Your task to perform on an android device: turn off notifications in google photos Image 0: 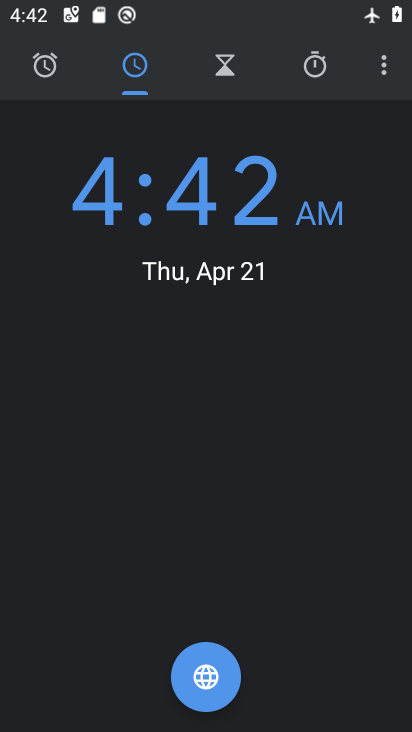
Step 0: press back button
Your task to perform on an android device: turn off notifications in google photos Image 1: 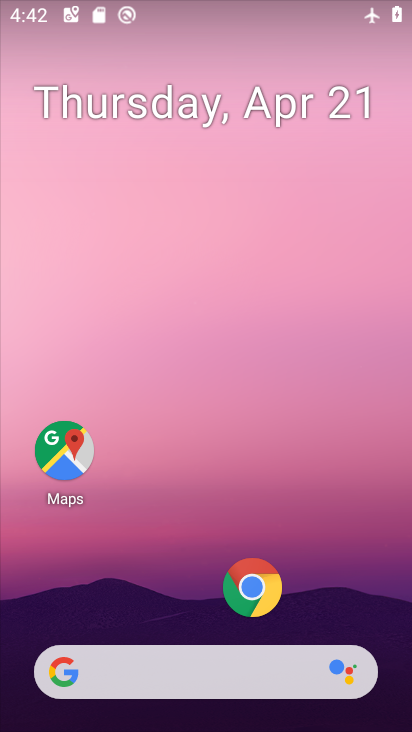
Step 1: drag from (138, 645) to (225, 112)
Your task to perform on an android device: turn off notifications in google photos Image 2: 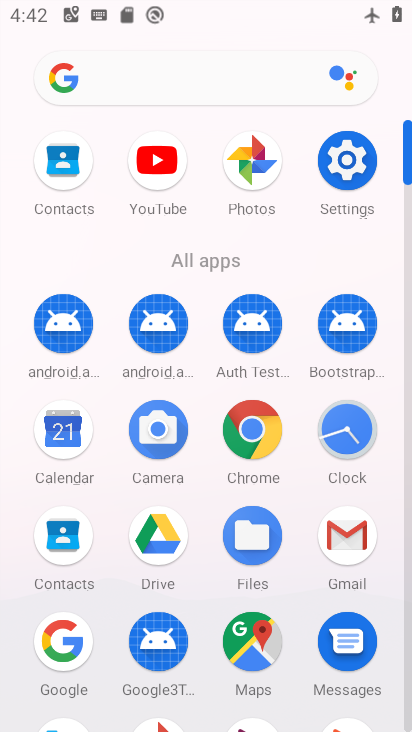
Step 2: drag from (174, 641) to (277, 323)
Your task to perform on an android device: turn off notifications in google photos Image 3: 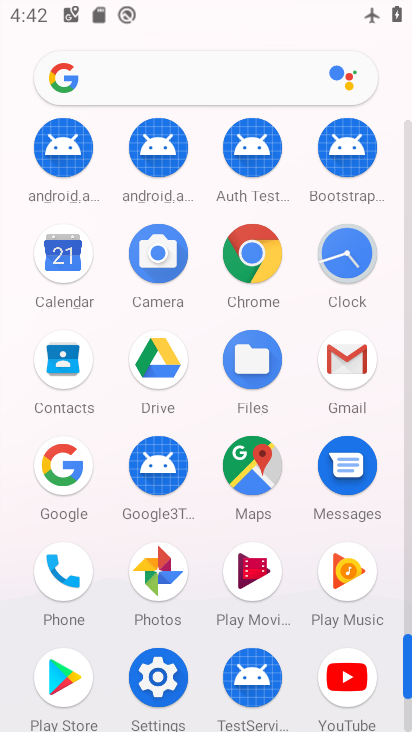
Step 3: click (168, 570)
Your task to perform on an android device: turn off notifications in google photos Image 4: 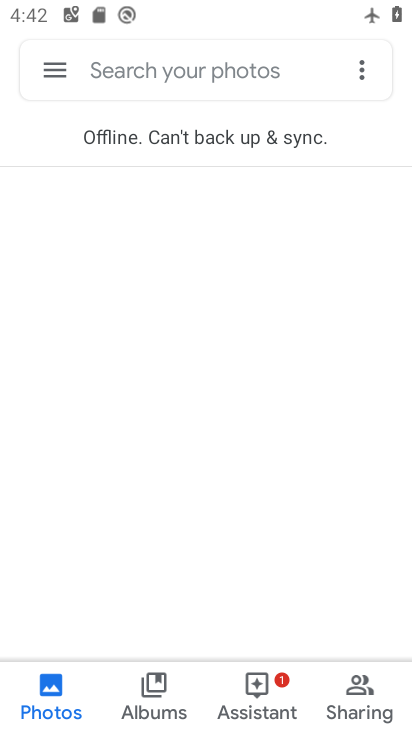
Step 4: click (55, 75)
Your task to perform on an android device: turn off notifications in google photos Image 5: 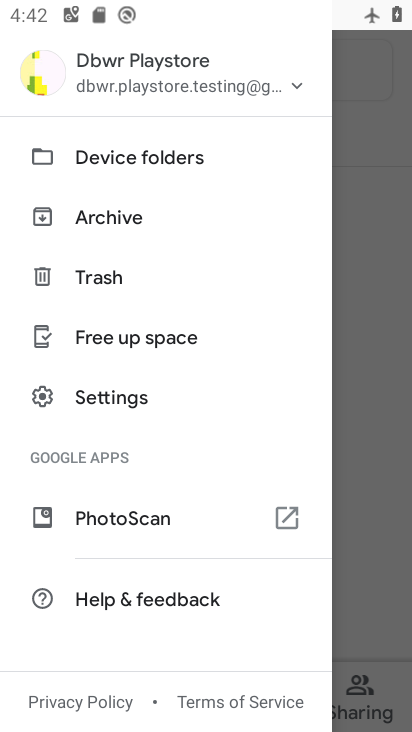
Step 5: click (124, 410)
Your task to perform on an android device: turn off notifications in google photos Image 6: 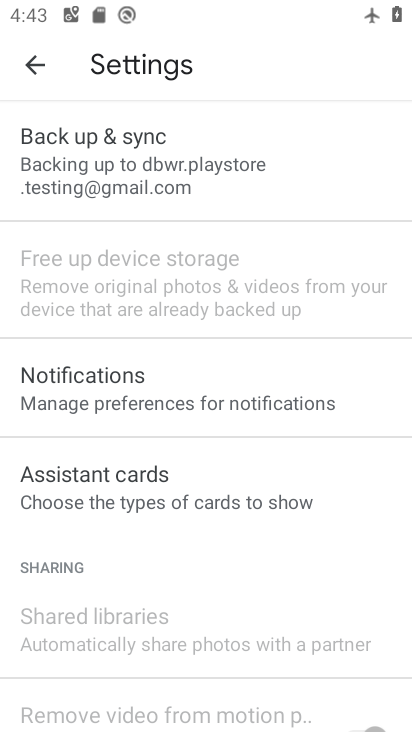
Step 6: click (151, 387)
Your task to perform on an android device: turn off notifications in google photos Image 7: 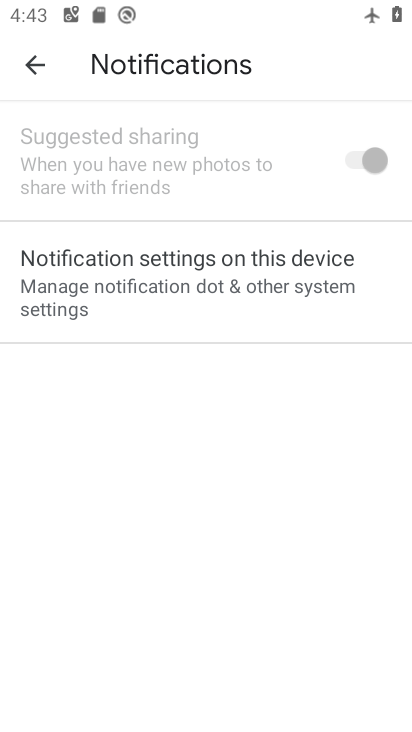
Step 7: click (211, 270)
Your task to perform on an android device: turn off notifications in google photos Image 8: 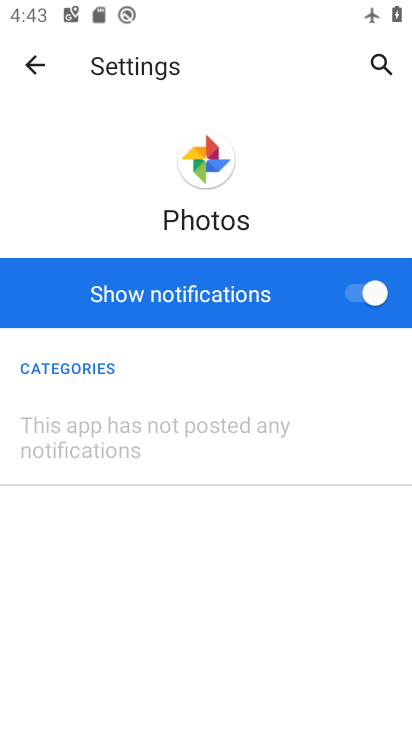
Step 8: click (359, 294)
Your task to perform on an android device: turn off notifications in google photos Image 9: 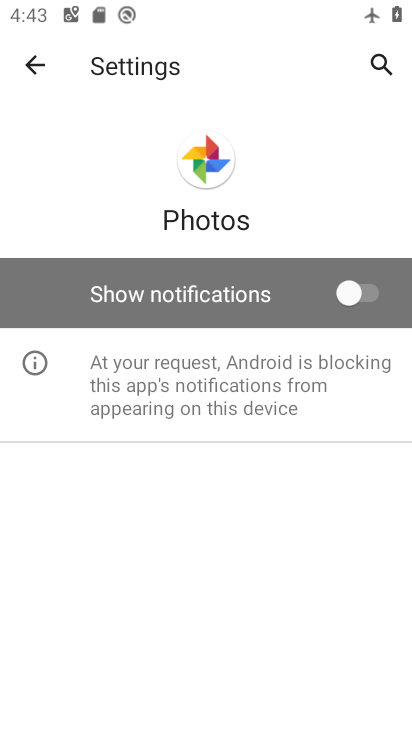
Step 9: task complete